Your task to perform on an android device: allow cookies in the chrome app Image 0: 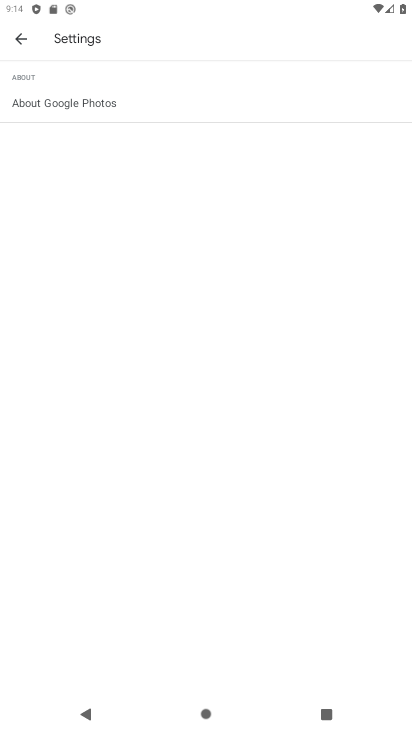
Step 0: press home button
Your task to perform on an android device: allow cookies in the chrome app Image 1: 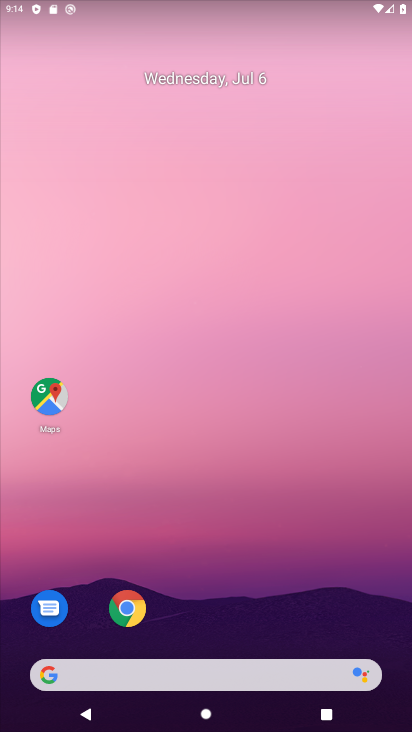
Step 1: click (125, 614)
Your task to perform on an android device: allow cookies in the chrome app Image 2: 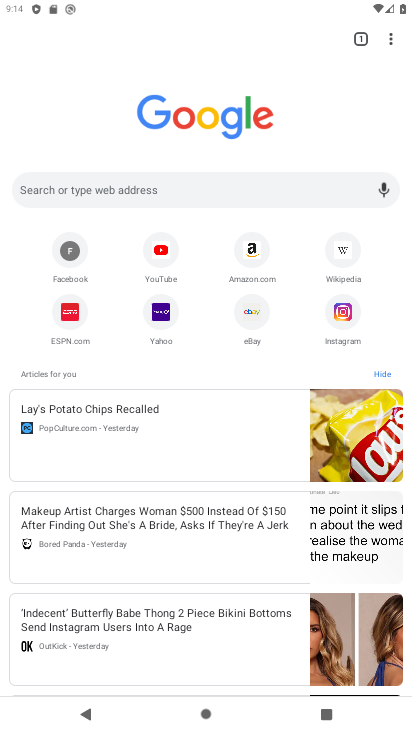
Step 2: drag from (388, 41) to (257, 371)
Your task to perform on an android device: allow cookies in the chrome app Image 3: 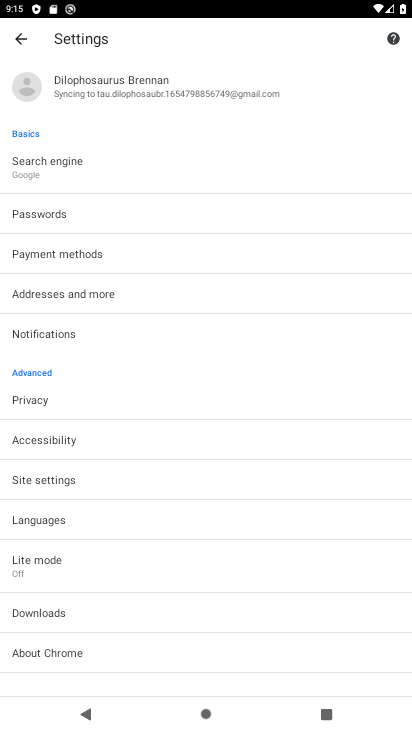
Step 3: click (84, 477)
Your task to perform on an android device: allow cookies in the chrome app Image 4: 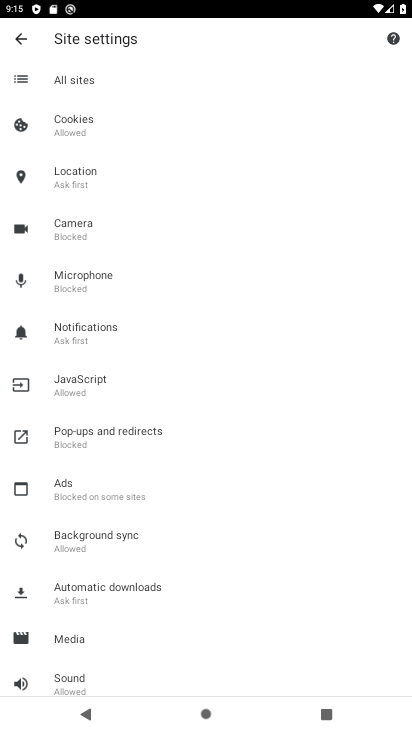
Step 4: click (93, 117)
Your task to perform on an android device: allow cookies in the chrome app Image 5: 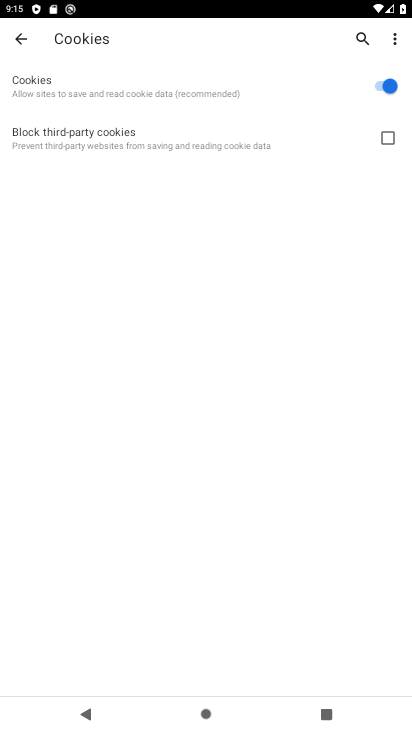
Step 5: task complete